Your task to perform on an android device: turn on location history Image 0: 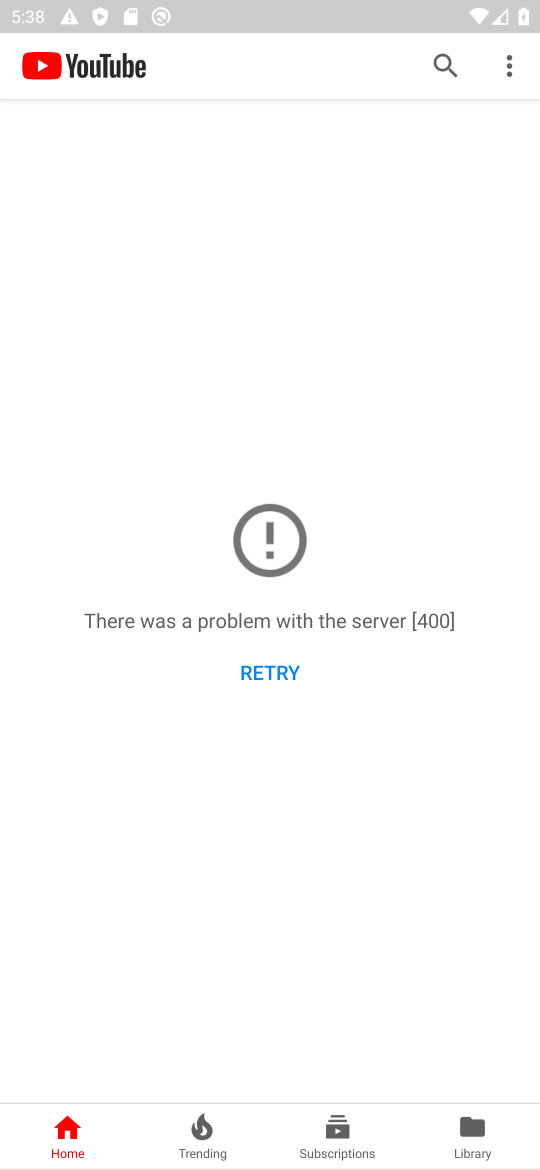
Step 0: press home button
Your task to perform on an android device: turn on location history Image 1: 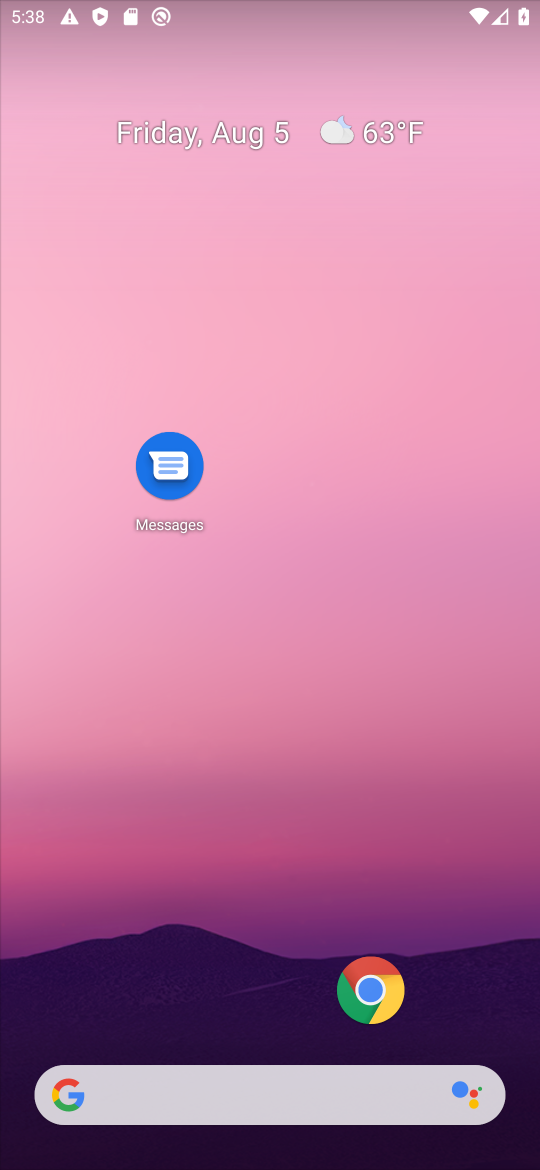
Step 1: drag from (143, 1084) to (165, 482)
Your task to perform on an android device: turn on location history Image 2: 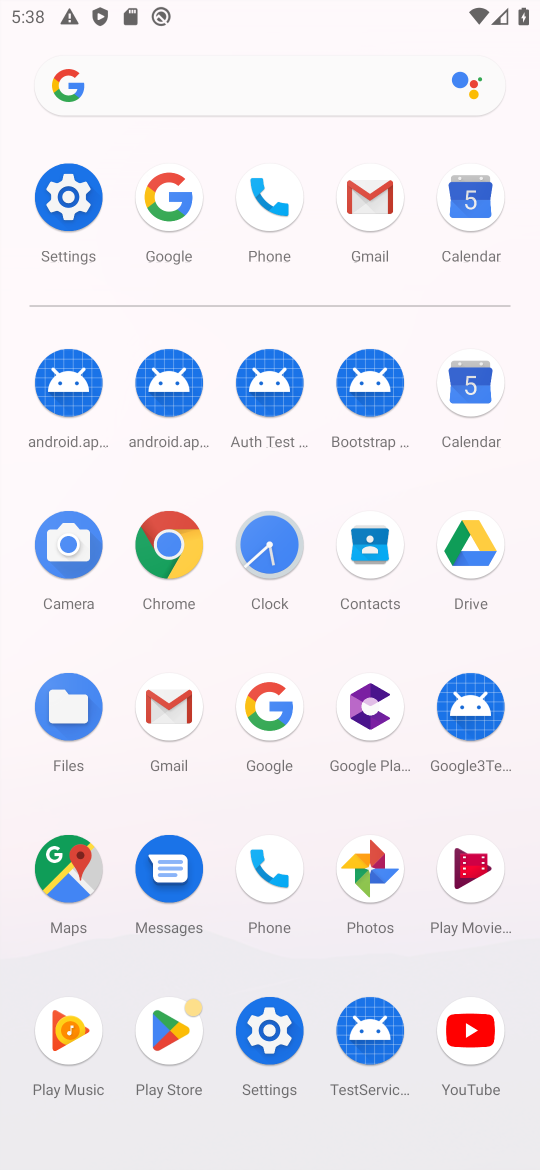
Step 2: click (278, 1027)
Your task to perform on an android device: turn on location history Image 3: 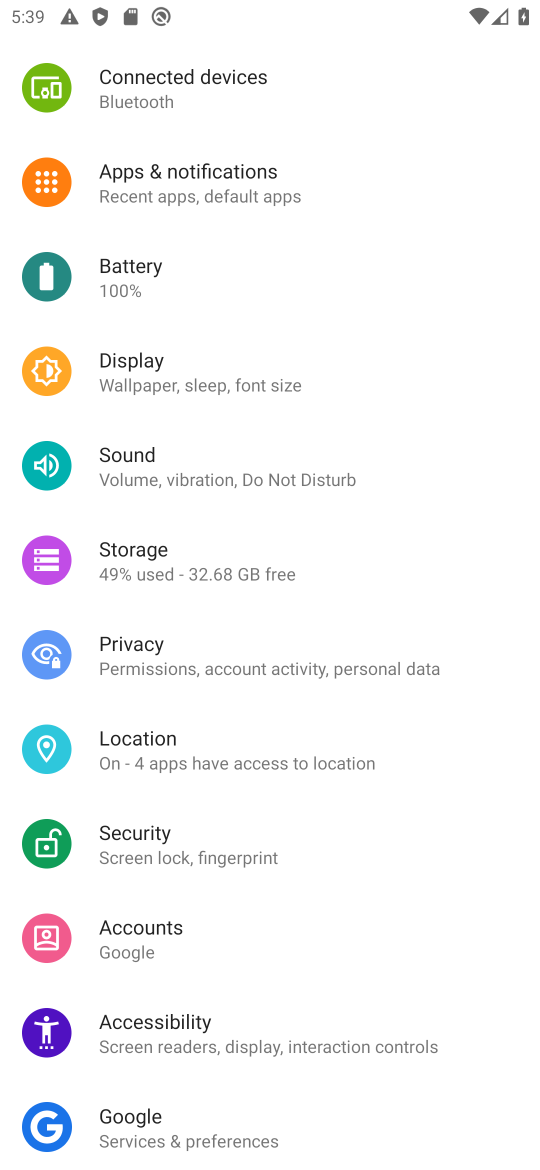
Step 3: click (161, 743)
Your task to perform on an android device: turn on location history Image 4: 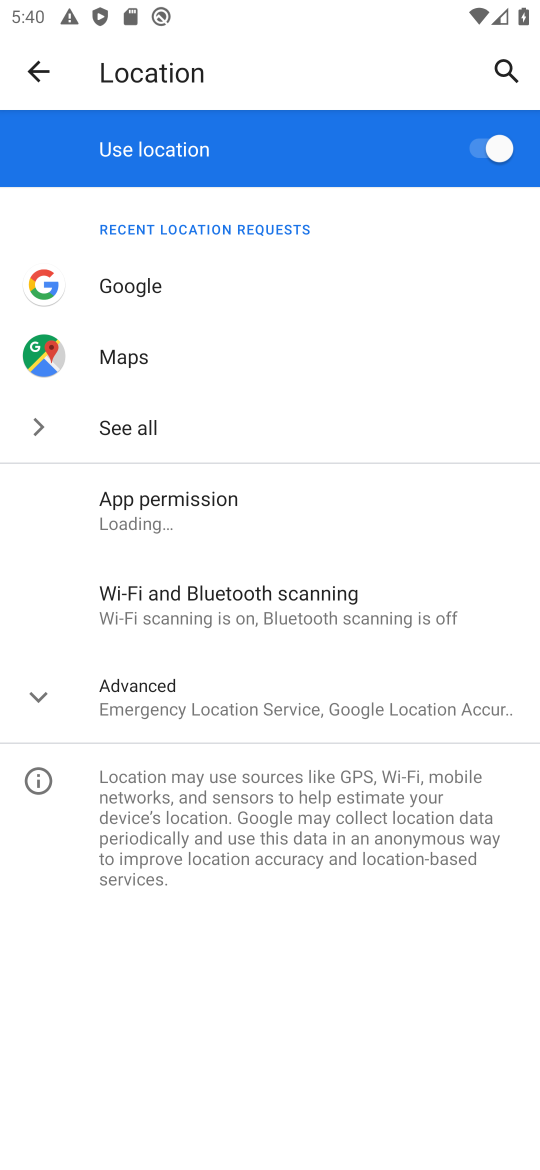
Step 4: click (144, 706)
Your task to perform on an android device: turn on location history Image 5: 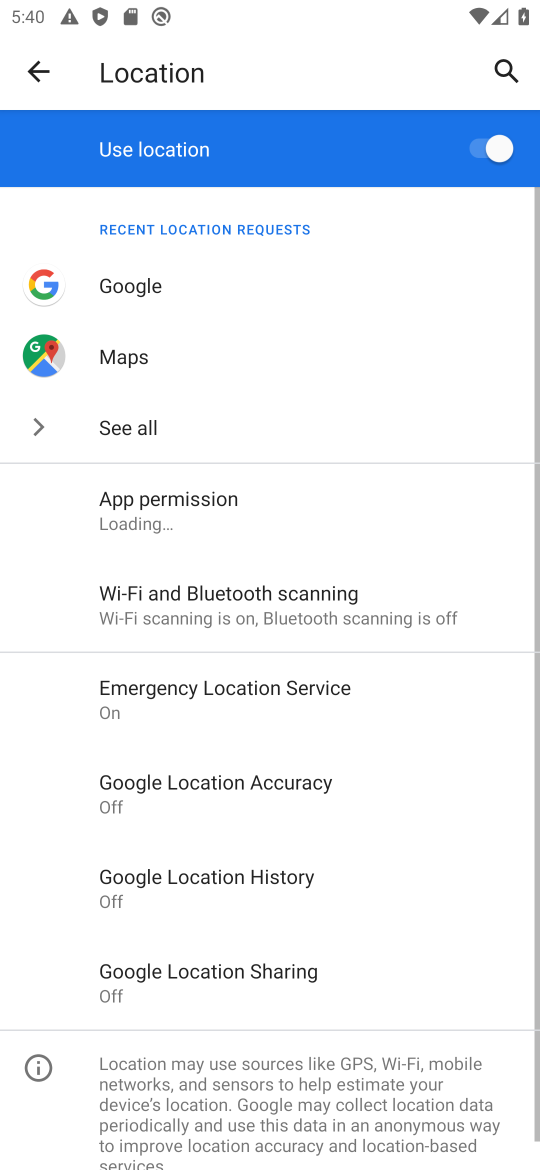
Step 5: click (226, 875)
Your task to perform on an android device: turn on location history Image 6: 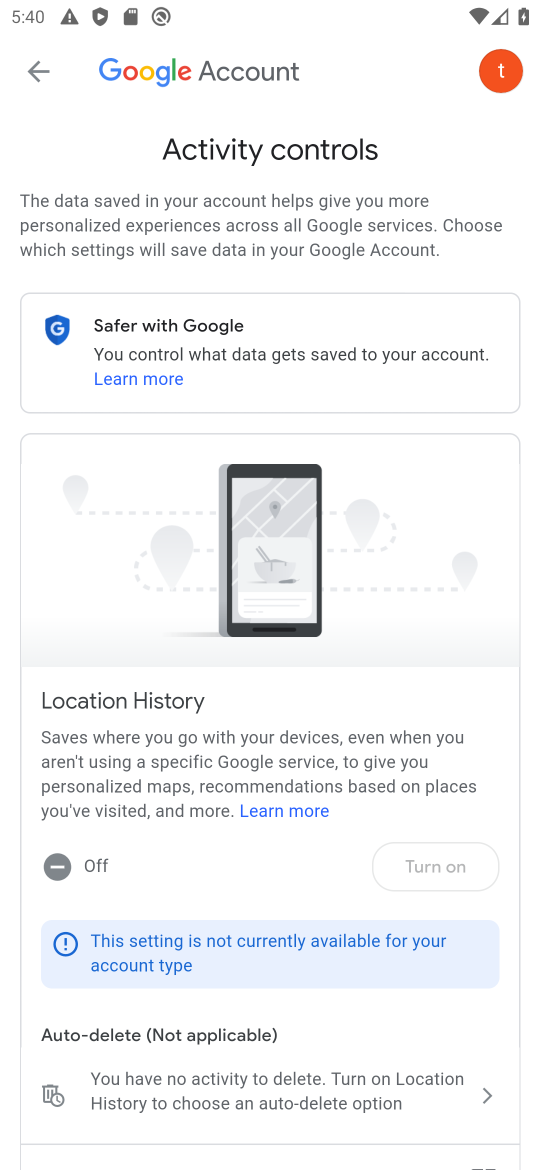
Step 6: click (434, 872)
Your task to perform on an android device: turn on location history Image 7: 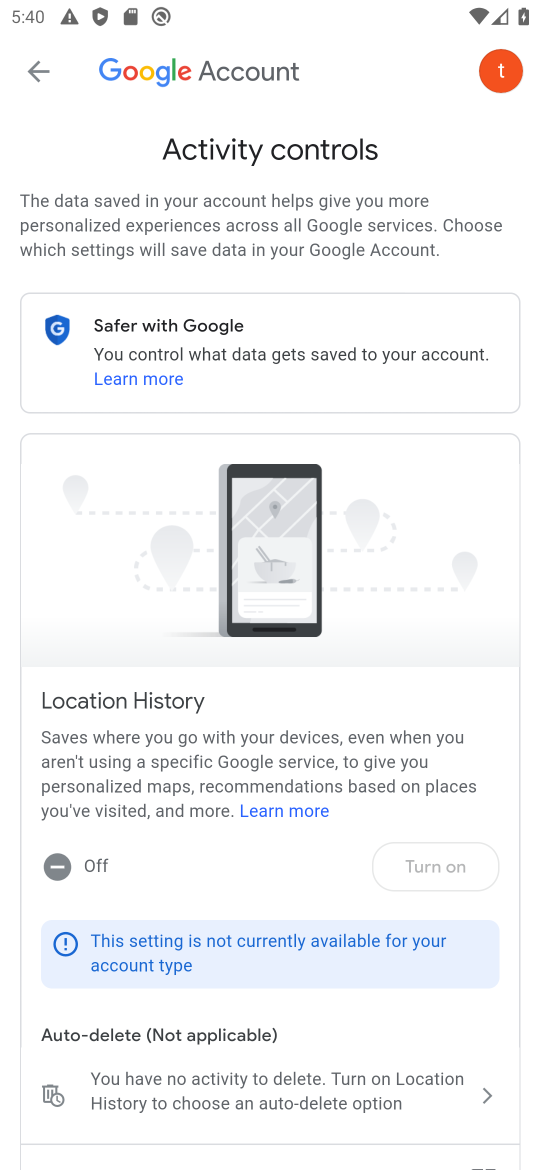
Step 7: task complete